Your task to perform on an android device: check android version Image 0: 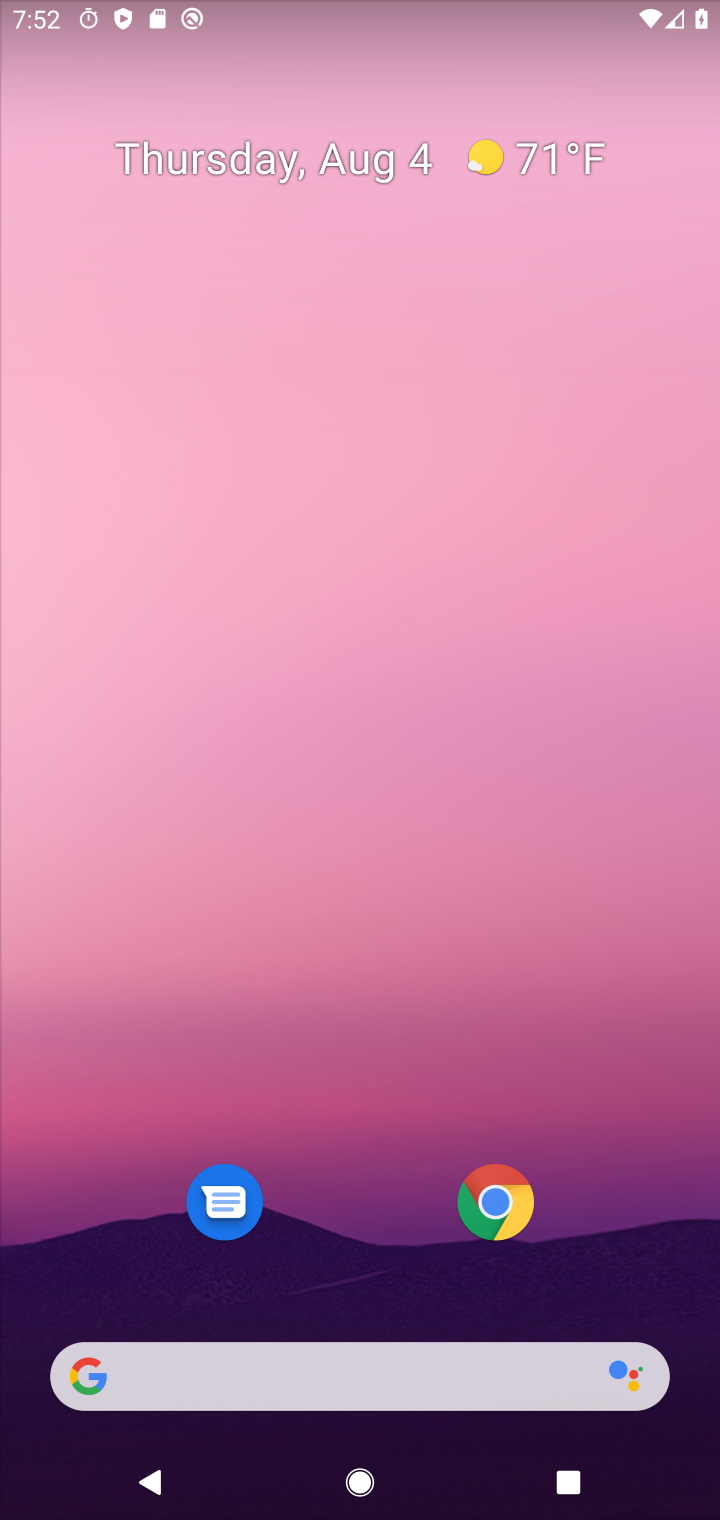
Step 0: drag from (354, 1100) to (334, 374)
Your task to perform on an android device: check android version Image 1: 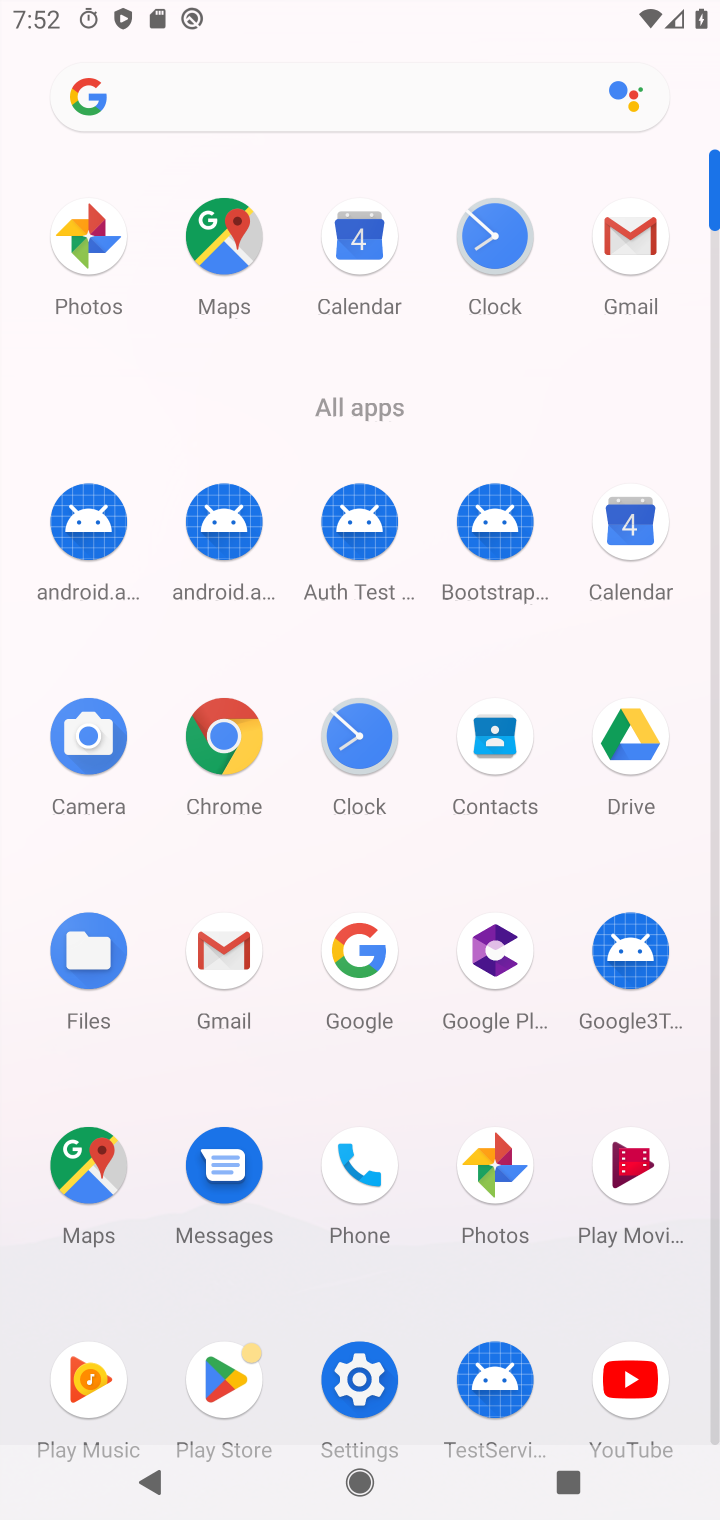
Step 1: click (364, 1367)
Your task to perform on an android device: check android version Image 2: 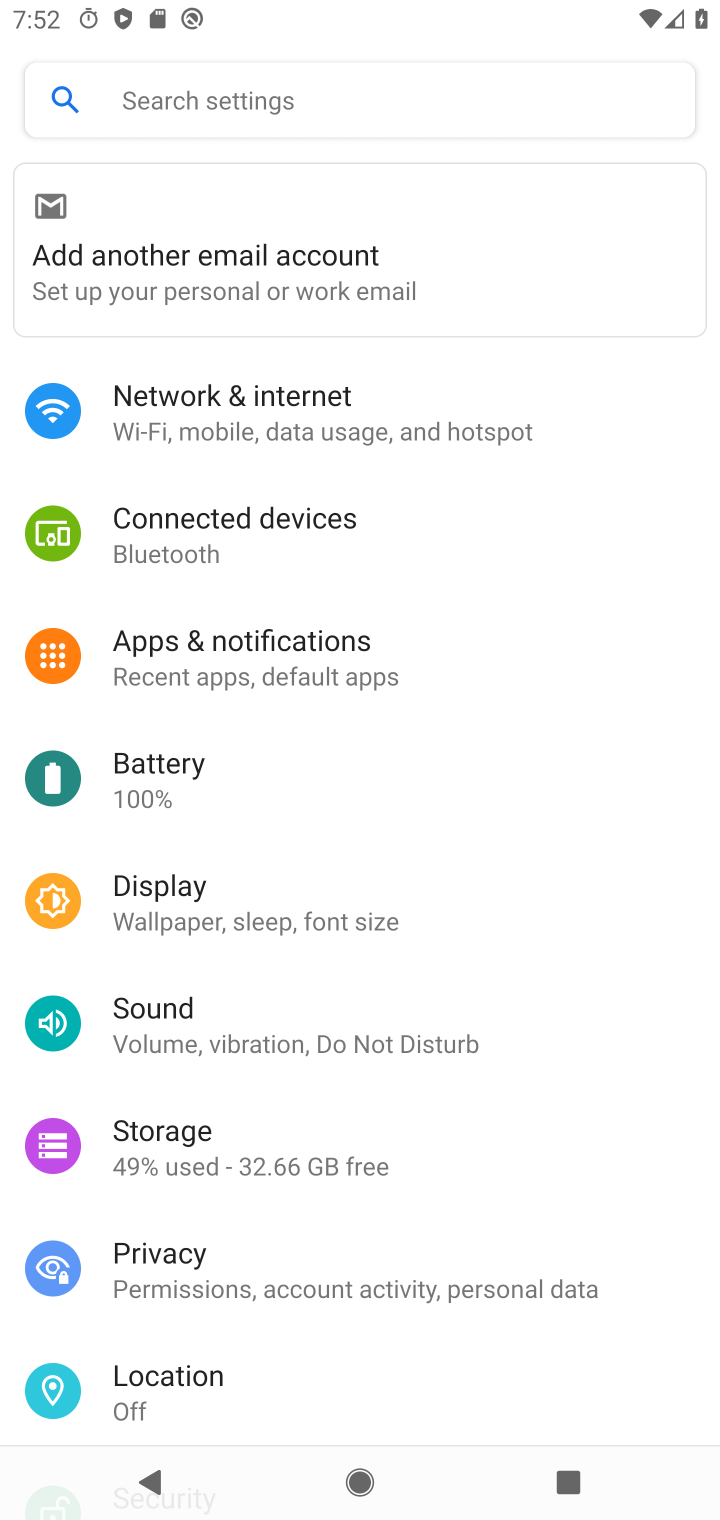
Step 2: drag from (317, 1147) to (321, 85)
Your task to perform on an android device: check android version Image 3: 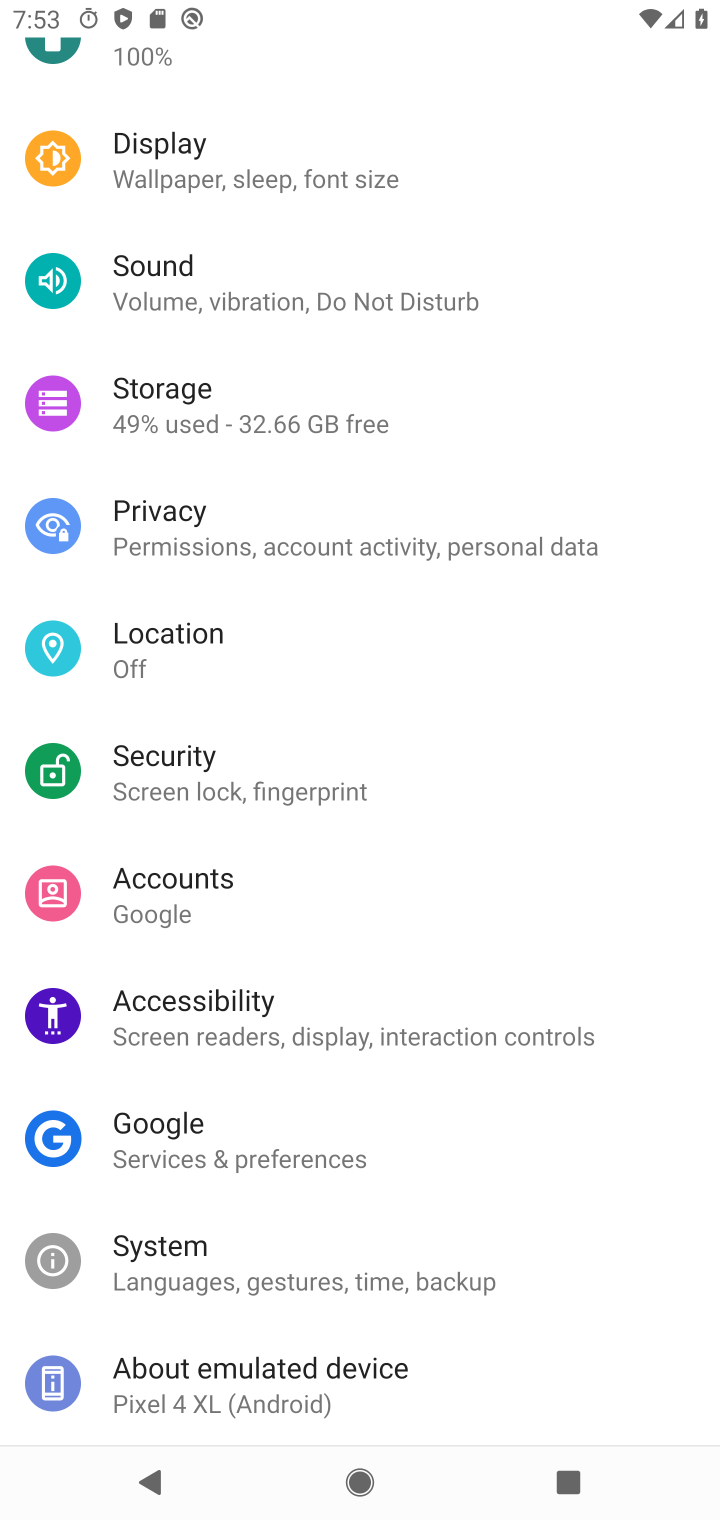
Step 3: drag from (308, 1344) to (324, 270)
Your task to perform on an android device: check android version Image 4: 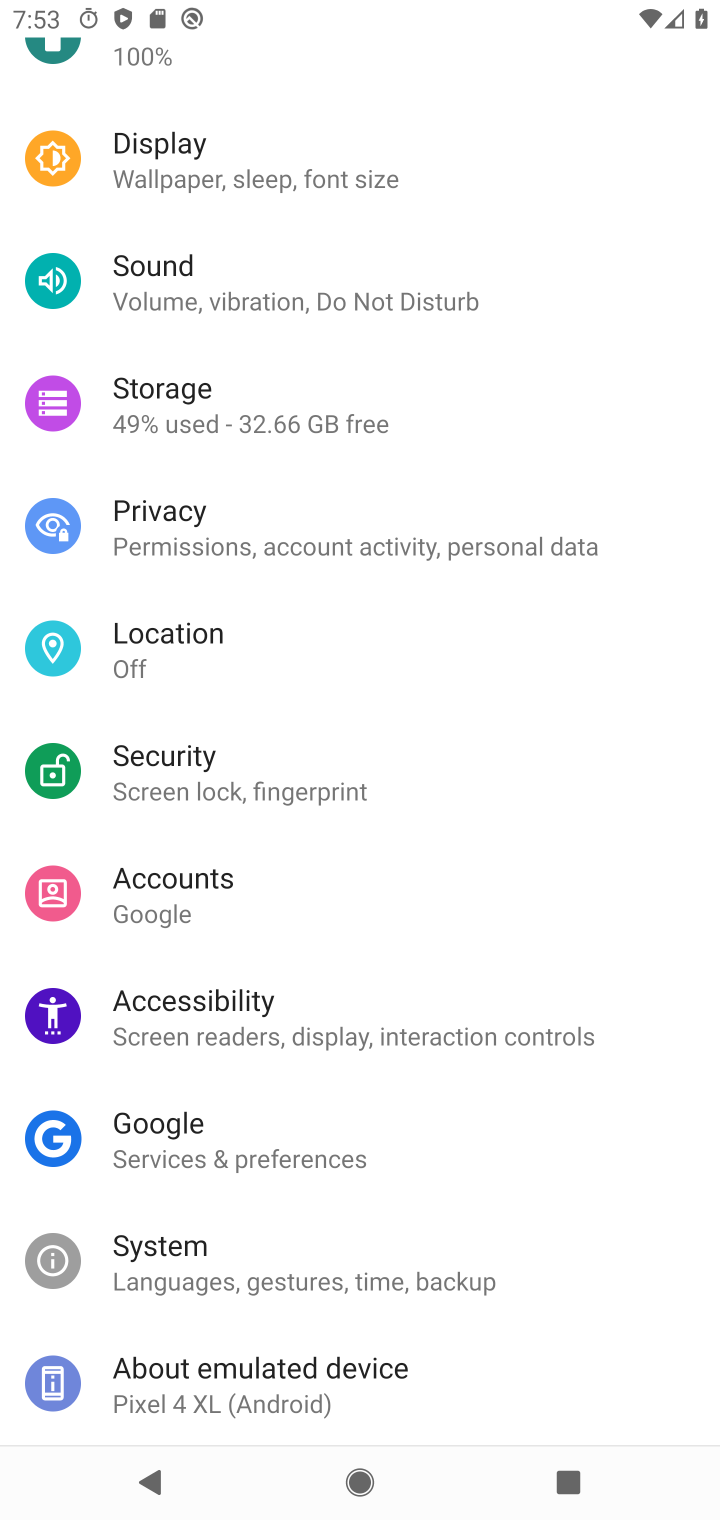
Step 4: click (272, 1365)
Your task to perform on an android device: check android version Image 5: 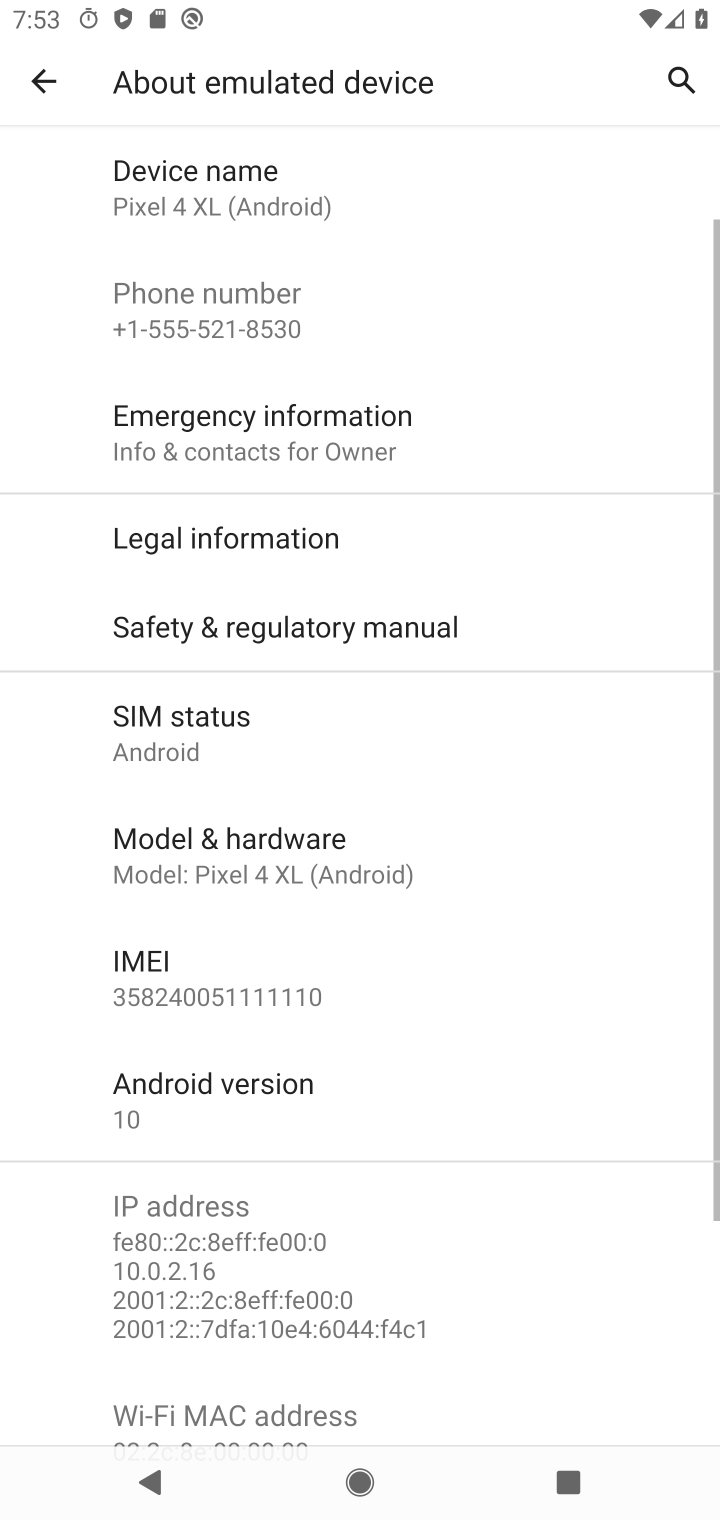
Step 5: click (264, 1109)
Your task to perform on an android device: check android version Image 6: 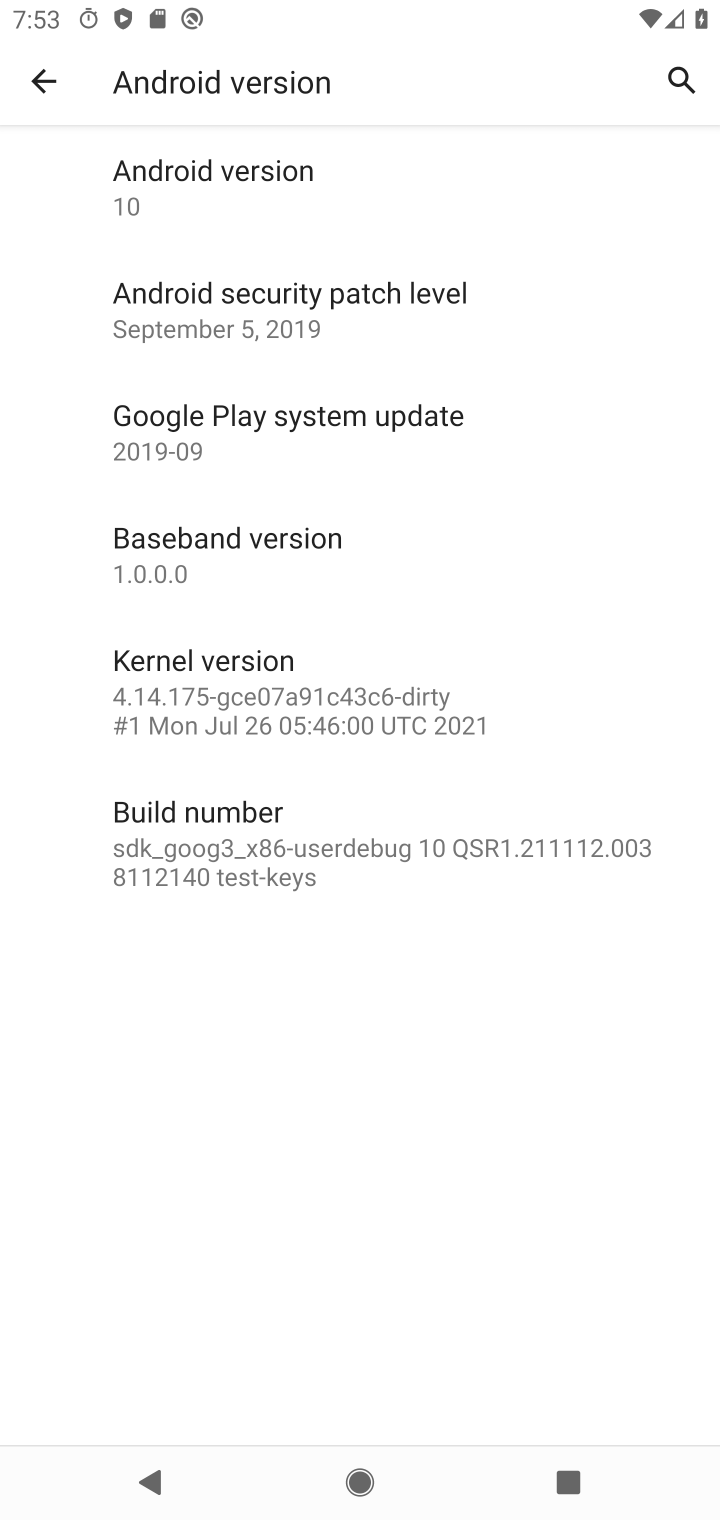
Step 6: click (222, 187)
Your task to perform on an android device: check android version Image 7: 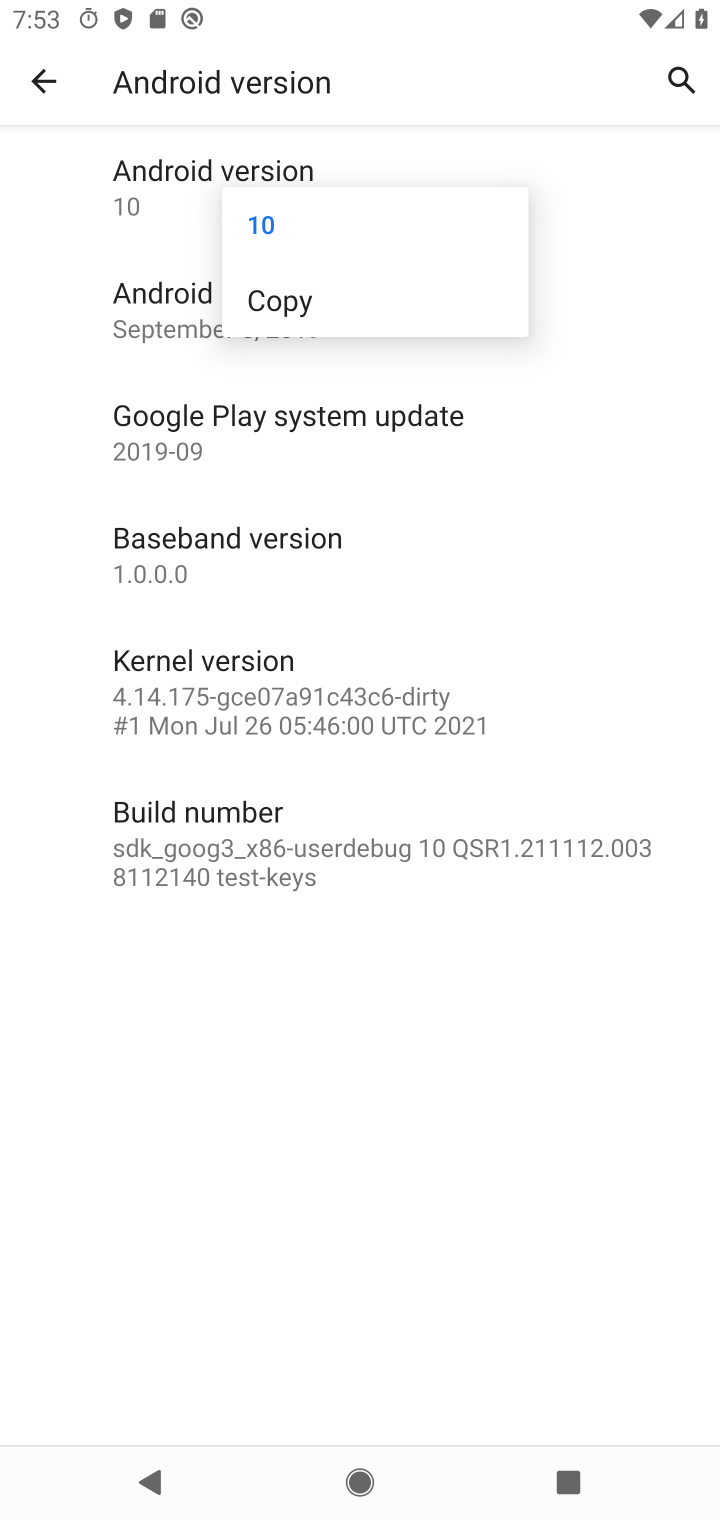
Step 7: task complete